Your task to perform on an android device: open chrome and create a bookmark for the current page Image 0: 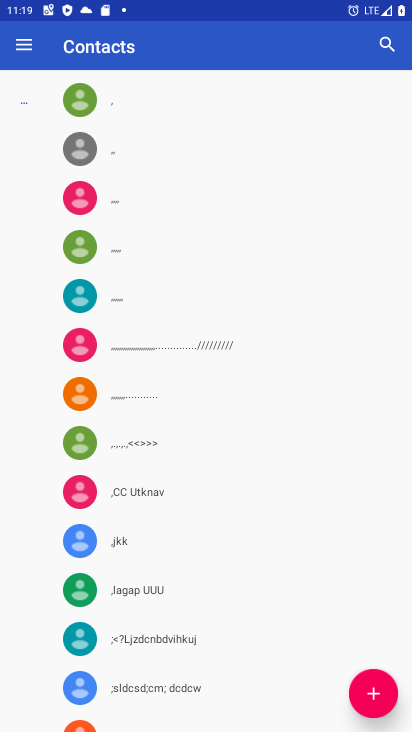
Step 0: press home button
Your task to perform on an android device: open chrome and create a bookmark for the current page Image 1: 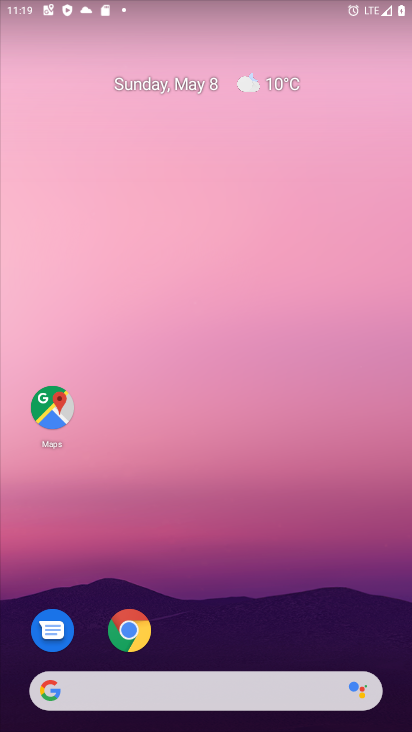
Step 1: drag from (371, 620) to (326, 54)
Your task to perform on an android device: open chrome and create a bookmark for the current page Image 2: 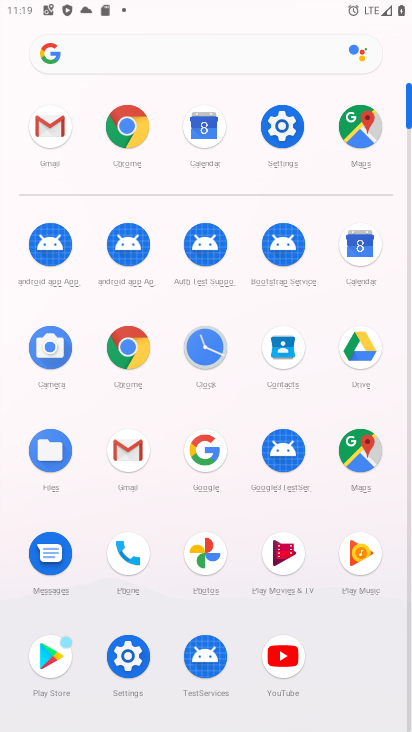
Step 2: click (134, 358)
Your task to perform on an android device: open chrome and create a bookmark for the current page Image 3: 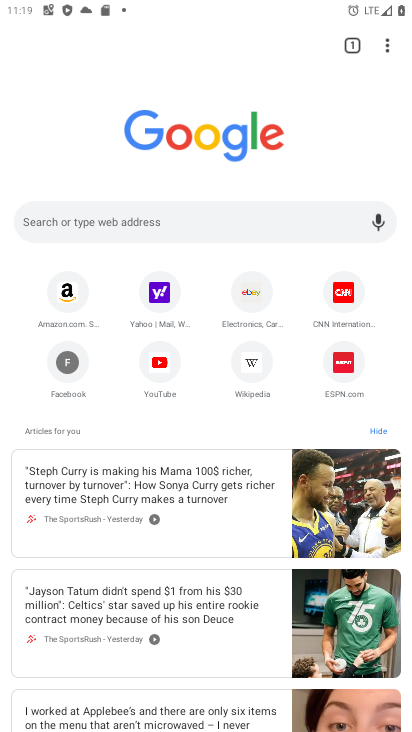
Step 3: click (385, 41)
Your task to perform on an android device: open chrome and create a bookmark for the current page Image 4: 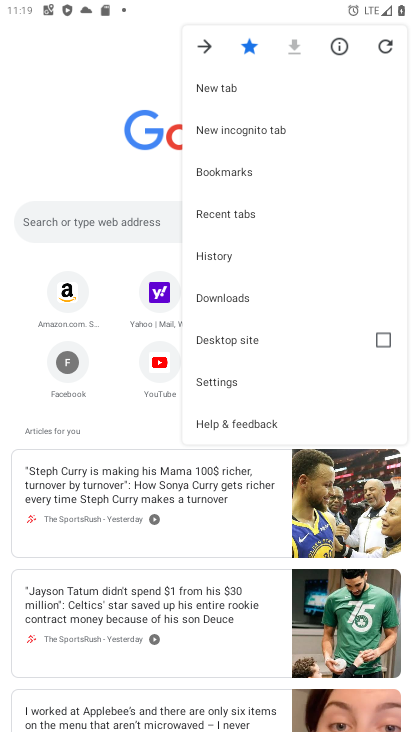
Step 4: task complete